Your task to perform on an android device: Open Chrome and go to the settings page Image 0: 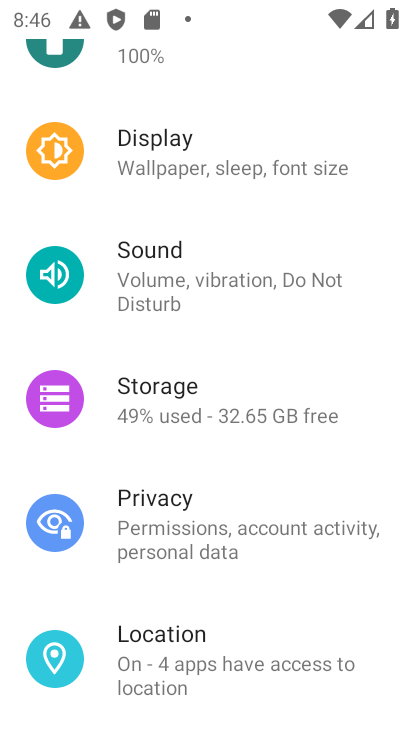
Step 0: press home button
Your task to perform on an android device: Open Chrome and go to the settings page Image 1: 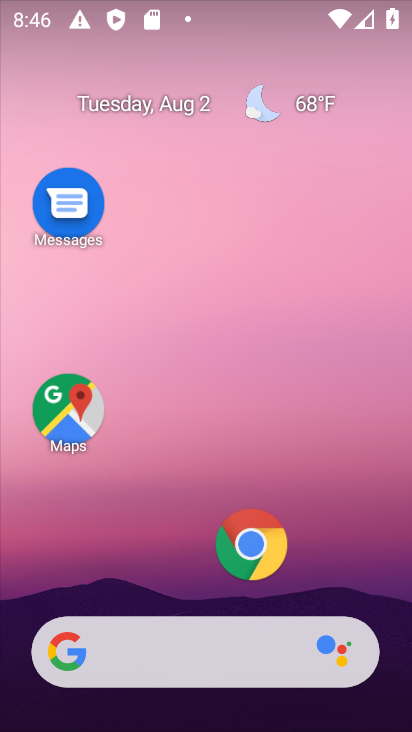
Step 1: click (254, 552)
Your task to perform on an android device: Open Chrome and go to the settings page Image 2: 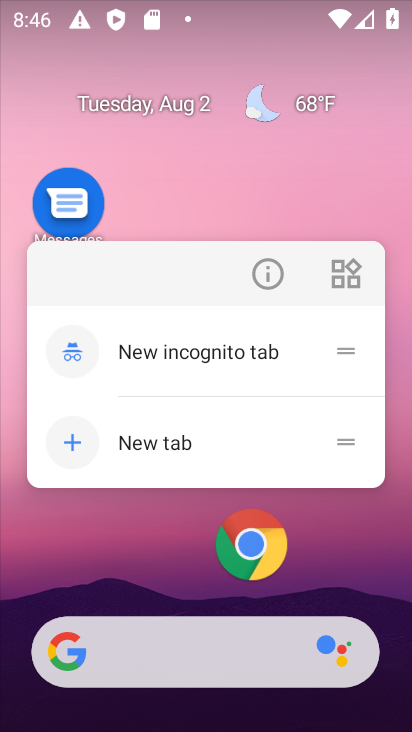
Step 2: click (254, 552)
Your task to perform on an android device: Open Chrome and go to the settings page Image 3: 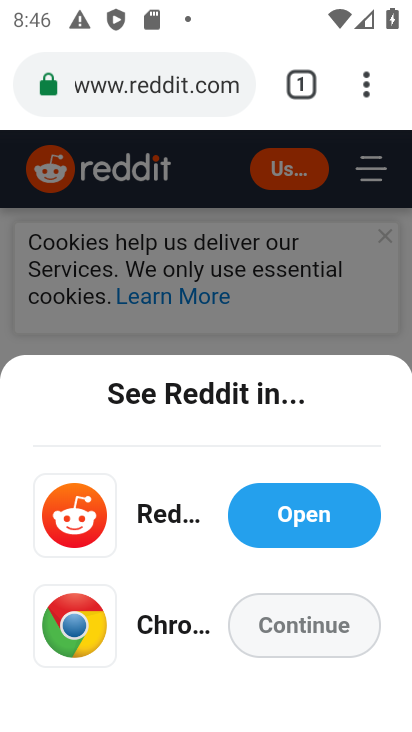
Step 3: click (364, 81)
Your task to perform on an android device: Open Chrome and go to the settings page Image 4: 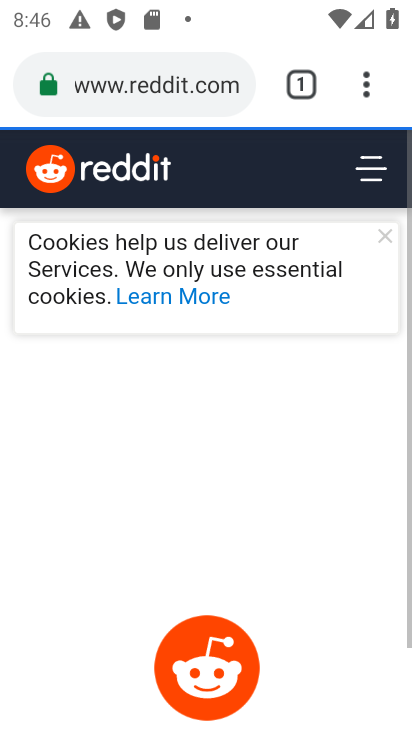
Step 4: click (364, 81)
Your task to perform on an android device: Open Chrome and go to the settings page Image 5: 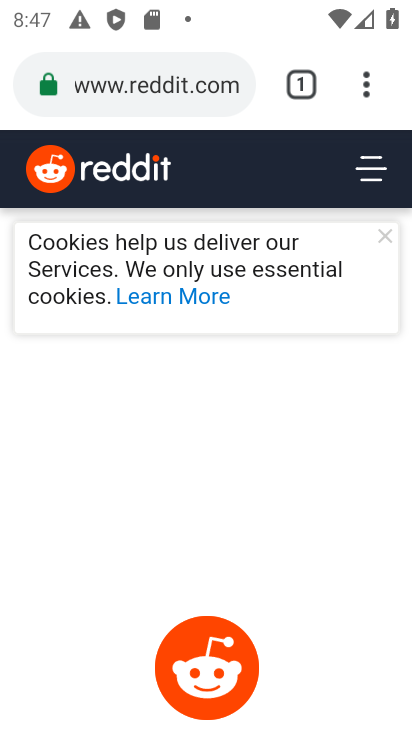
Step 5: click (364, 81)
Your task to perform on an android device: Open Chrome and go to the settings page Image 6: 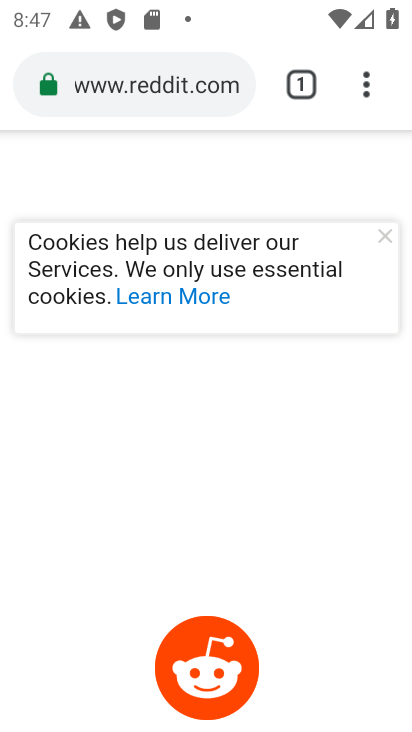
Step 6: click (374, 84)
Your task to perform on an android device: Open Chrome and go to the settings page Image 7: 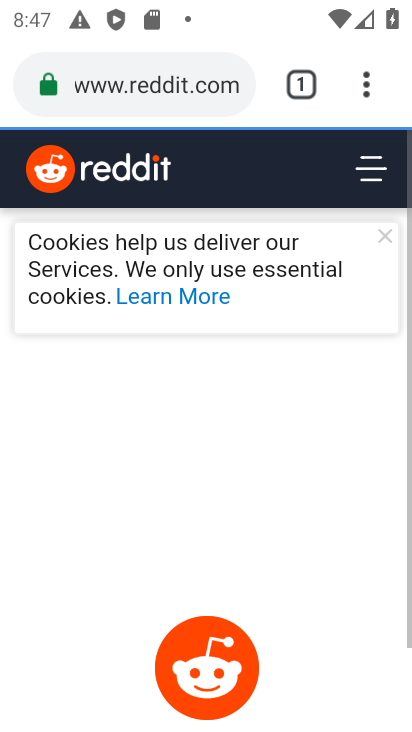
Step 7: click (367, 95)
Your task to perform on an android device: Open Chrome and go to the settings page Image 8: 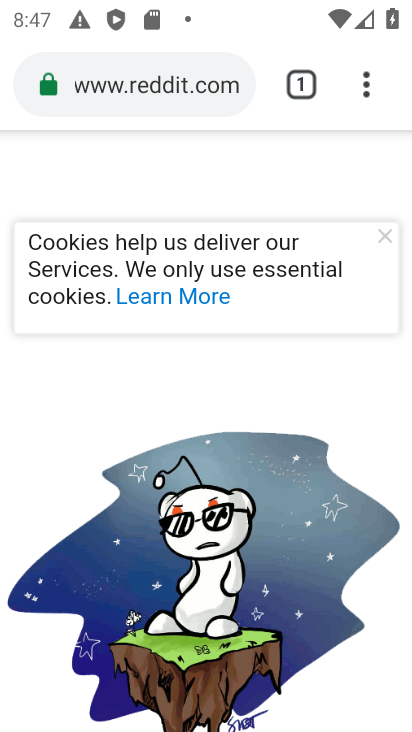
Step 8: click (365, 82)
Your task to perform on an android device: Open Chrome and go to the settings page Image 9: 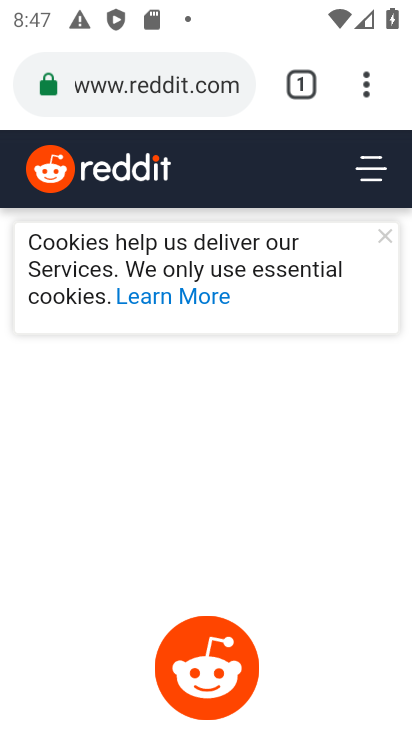
Step 9: click (366, 84)
Your task to perform on an android device: Open Chrome and go to the settings page Image 10: 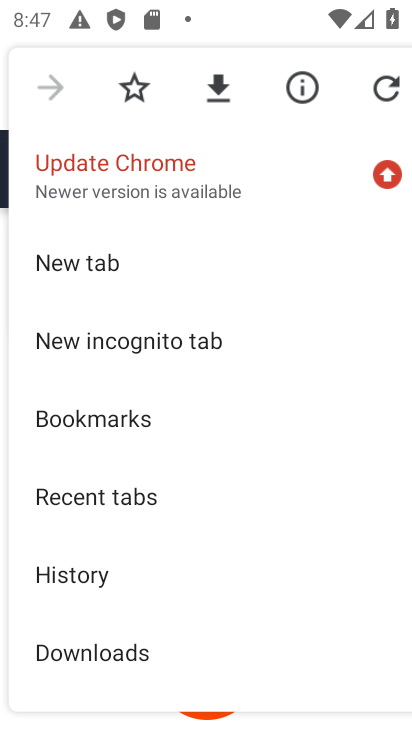
Step 10: drag from (126, 668) to (97, 326)
Your task to perform on an android device: Open Chrome and go to the settings page Image 11: 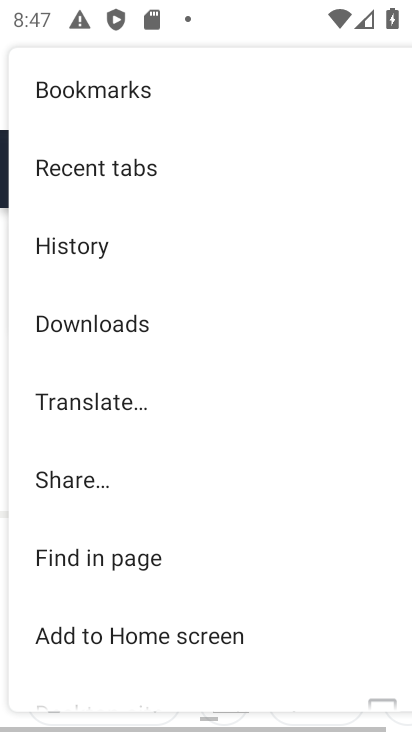
Step 11: drag from (101, 617) to (122, 182)
Your task to perform on an android device: Open Chrome and go to the settings page Image 12: 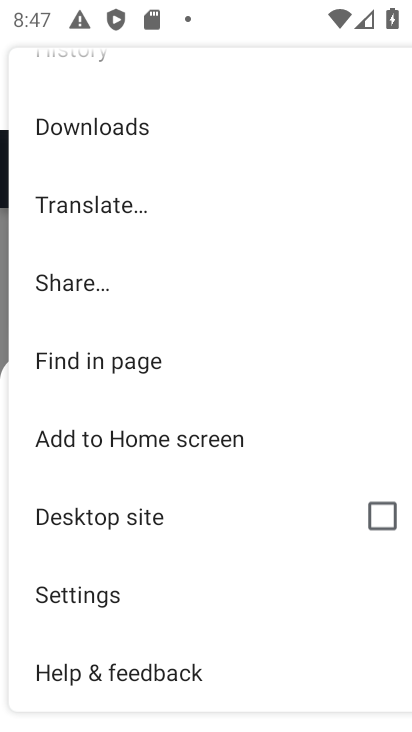
Step 12: click (65, 595)
Your task to perform on an android device: Open Chrome and go to the settings page Image 13: 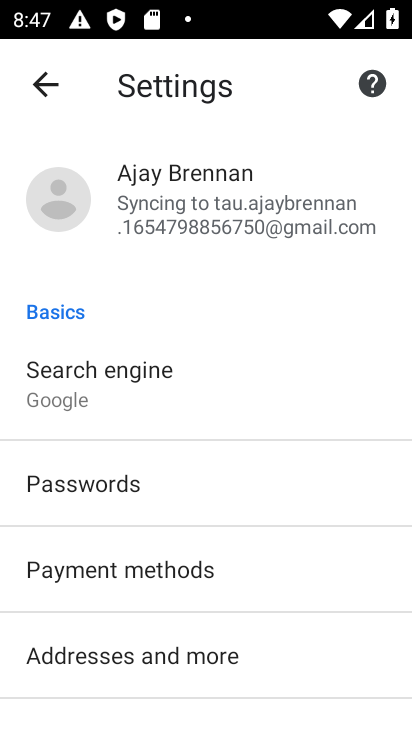
Step 13: task complete